Your task to perform on an android device: Is it going to rain this weekend? Image 0: 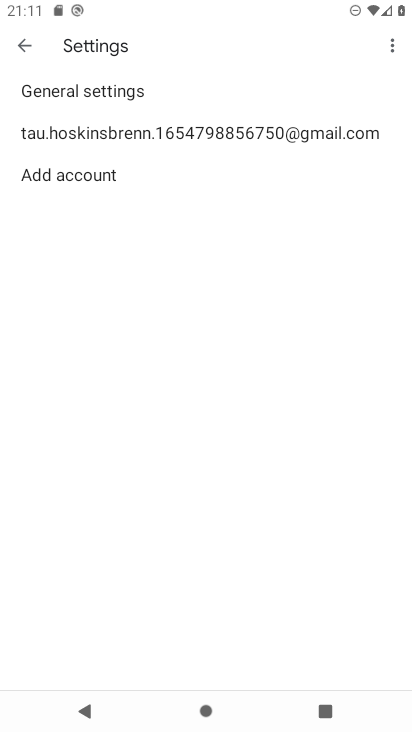
Step 0: press home button
Your task to perform on an android device: Is it going to rain this weekend? Image 1: 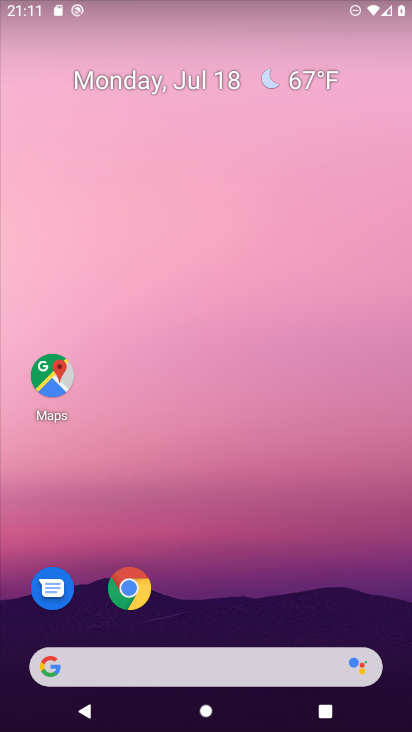
Step 1: click (295, 80)
Your task to perform on an android device: Is it going to rain this weekend? Image 2: 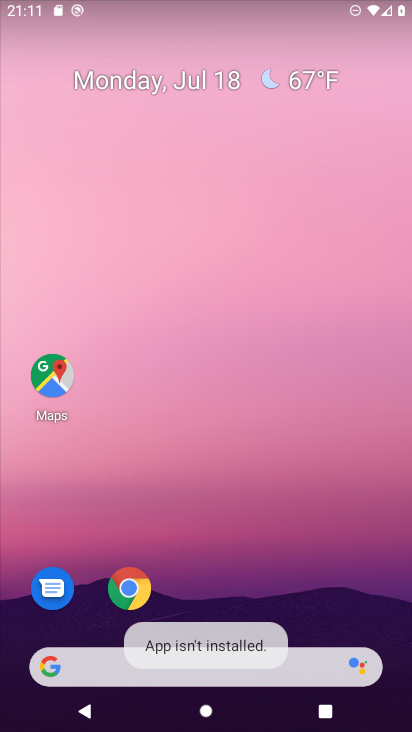
Step 2: click (268, 78)
Your task to perform on an android device: Is it going to rain this weekend? Image 3: 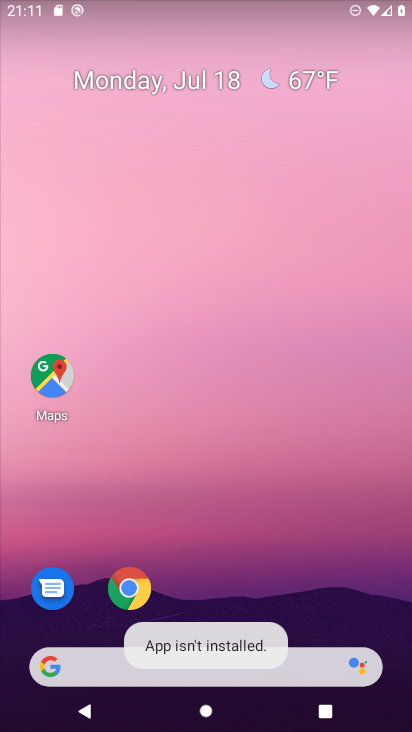
Step 3: click (328, 80)
Your task to perform on an android device: Is it going to rain this weekend? Image 4: 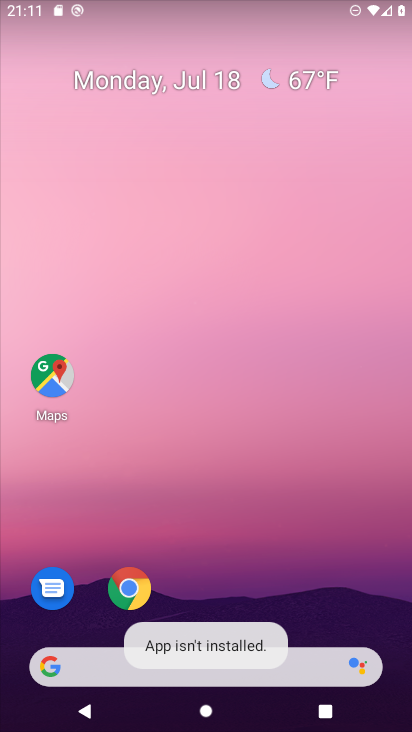
Step 4: drag from (7, 277) to (369, 268)
Your task to perform on an android device: Is it going to rain this weekend? Image 5: 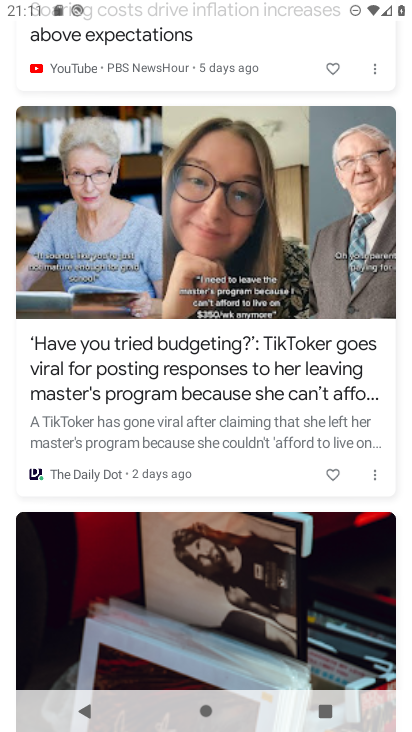
Step 5: drag from (277, 93) to (239, 478)
Your task to perform on an android device: Is it going to rain this weekend? Image 6: 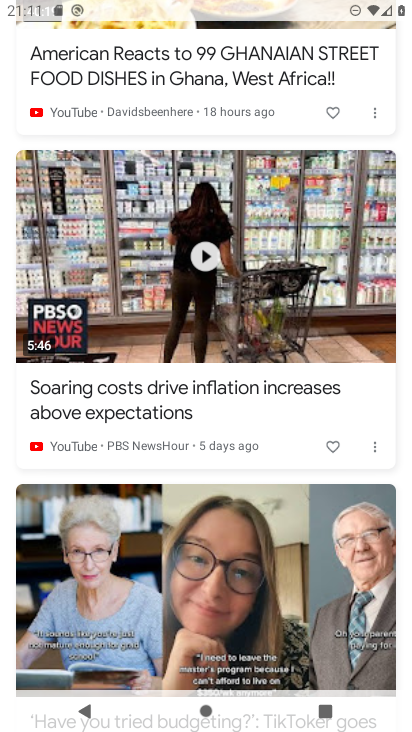
Step 6: drag from (249, 130) to (277, 601)
Your task to perform on an android device: Is it going to rain this weekend? Image 7: 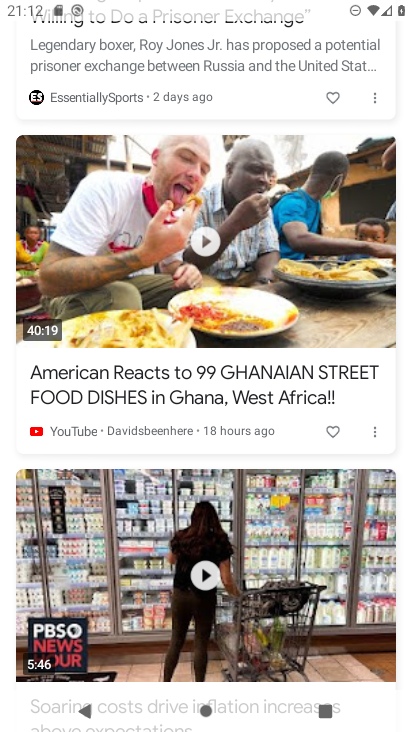
Step 7: drag from (239, 114) to (281, 572)
Your task to perform on an android device: Is it going to rain this weekend? Image 8: 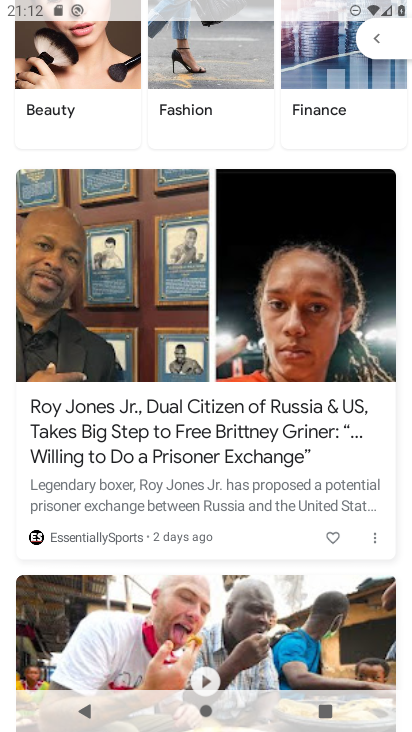
Step 8: drag from (245, 151) to (253, 697)
Your task to perform on an android device: Is it going to rain this weekend? Image 9: 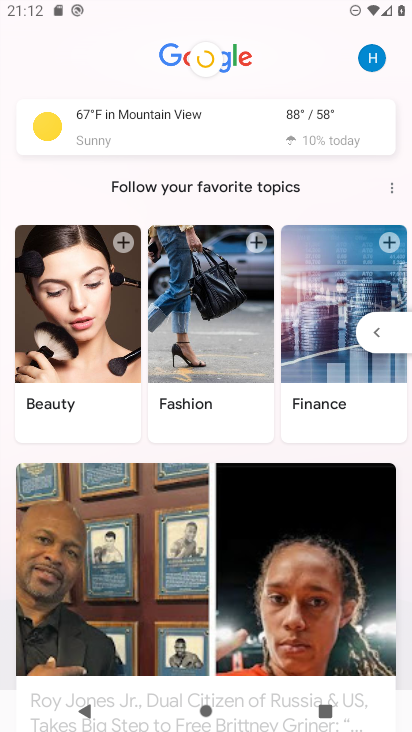
Step 9: click (302, 113)
Your task to perform on an android device: Is it going to rain this weekend? Image 10: 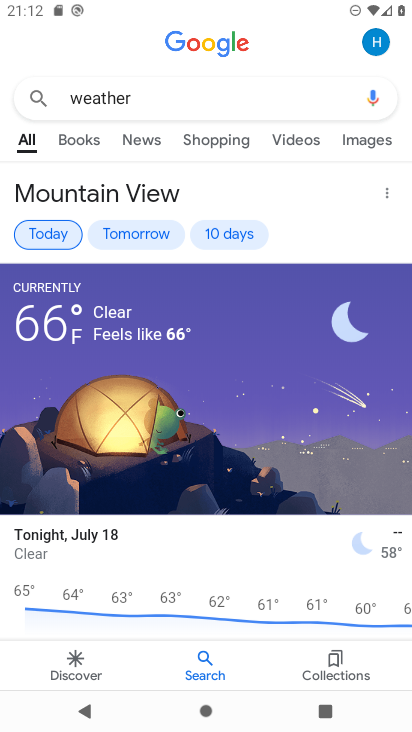
Step 10: click (232, 233)
Your task to perform on an android device: Is it going to rain this weekend? Image 11: 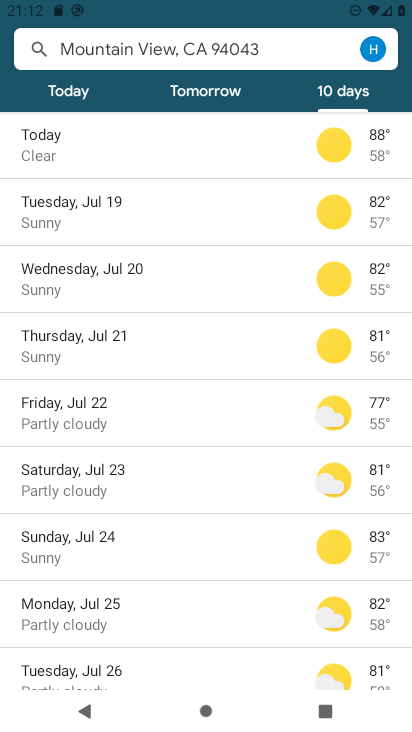
Step 11: task complete